Your task to perform on an android device: Search for pizza restaurants on Maps Image 0: 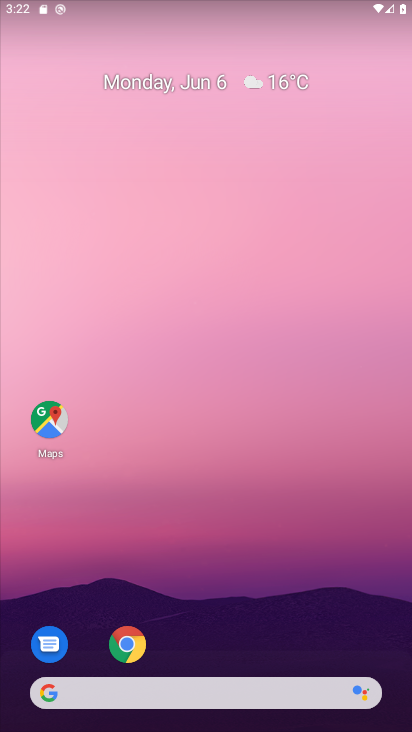
Step 0: drag from (232, 505) to (166, 47)
Your task to perform on an android device: Search for pizza restaurants on Maps Image 1: 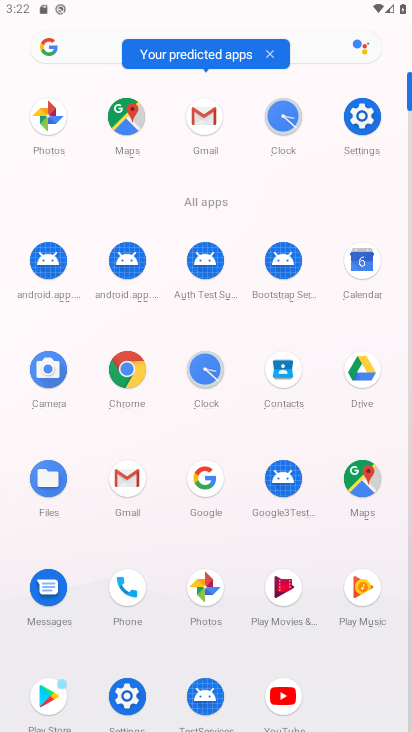
Step 1: drag from (13, 506) to (21, 206)
Your task to perform on an android device: Search for pizza restaurants on Maps Image 2: 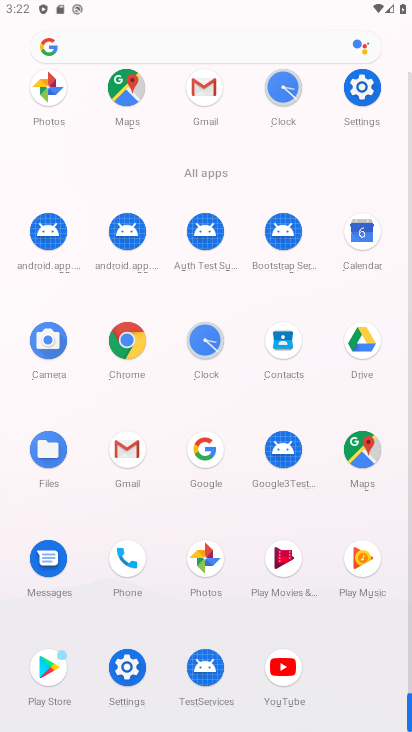
Step 2: click (361, 446)
Your task to perform on an android device: Search for pizza restaurants on Maps Image 3: 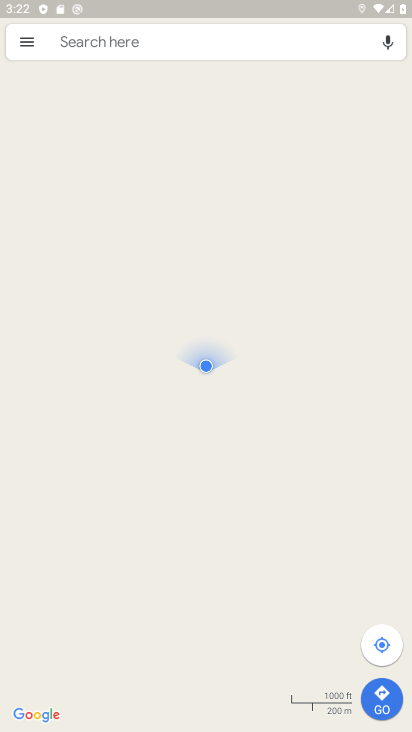
Step 3: click (194, 45)
Your task to perform on an android device: Search for pizza restaurants on Maps Image 4: 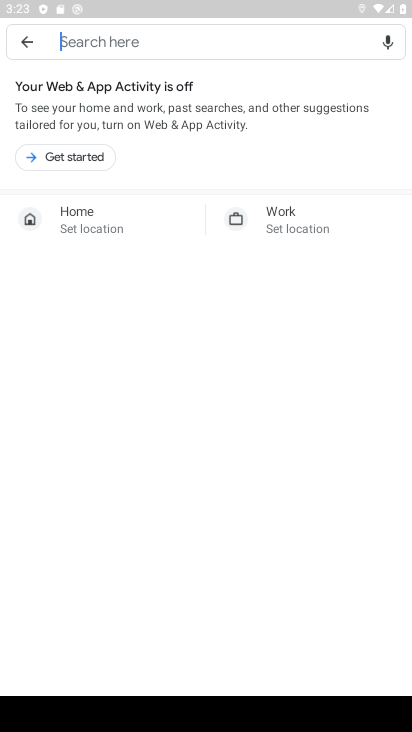
Step 4: type "pizza restaurants"
Your task to perform on an android device: Search for pizza restaurants on Maps Image 5: 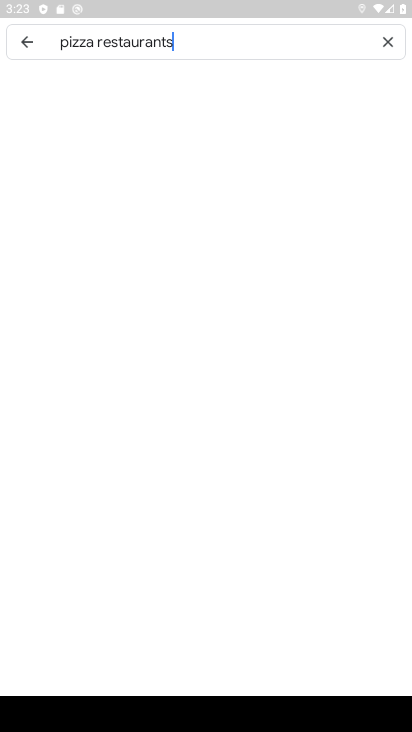
Step 5: type ""
Your task to perform on an android device: Search for pizza restaurants on Maps Image 6: 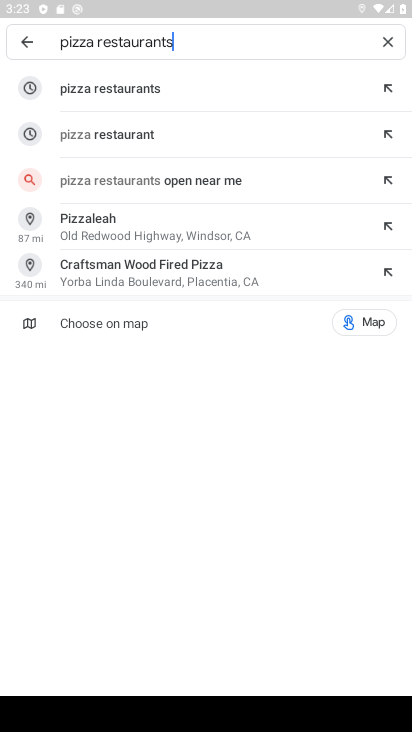
Step 6: click (163, 93)
Your task to perform on an android device: Search for pizza restaurants on Maps Image 7: 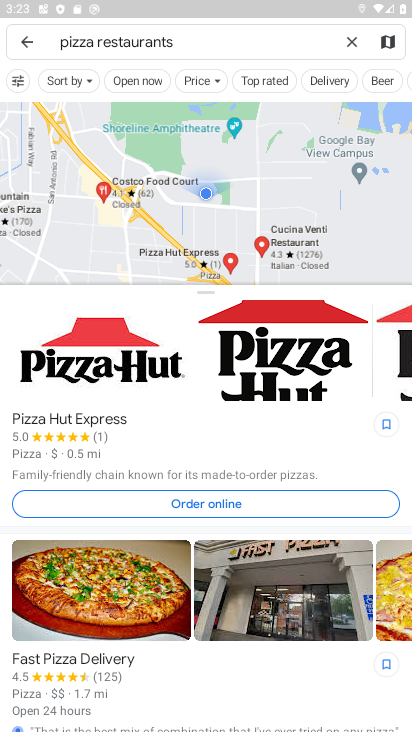
Step 7: task complete